Your task to perform on an android device: turn off priority inbox in the gmail app Image 0: 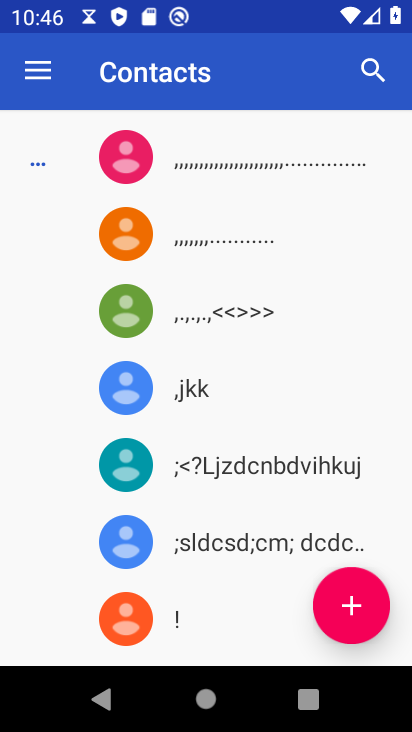
Step 0: press home button
Your task to perform on an android device: turn off priority inbox in the gmail app Image 1: 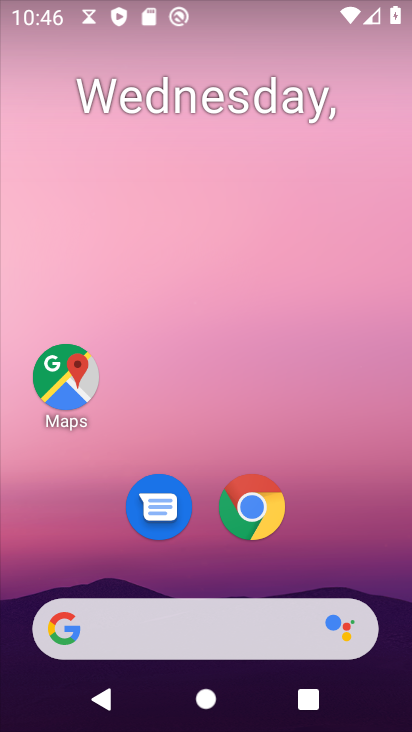
Step 1: drag from (250, 598) to (206, 199)
Your task to perform on an android device: turn off priority inbox in the gmail app Image 2: 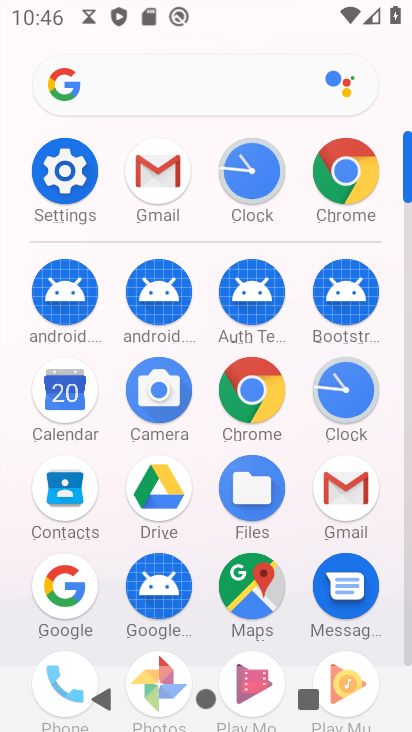
Step 2: click (143, 200)
Your task to perform on an android device: turn off priority inbox in the gmail app Image 3: 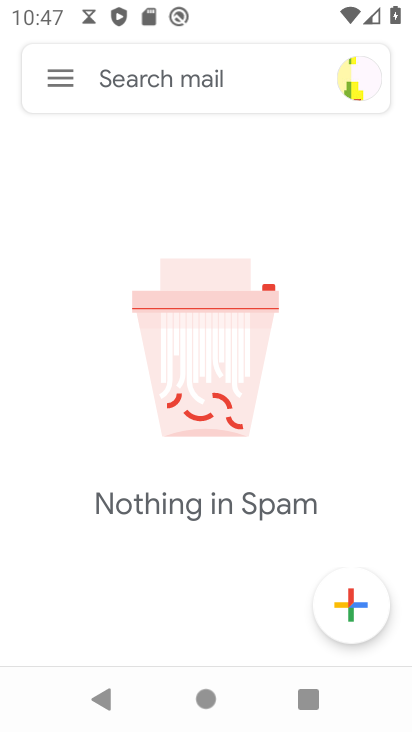
Step 3: click (43, 87)
Your task to perform on an android device: turn off priority inbox in the gmail app Image 4: 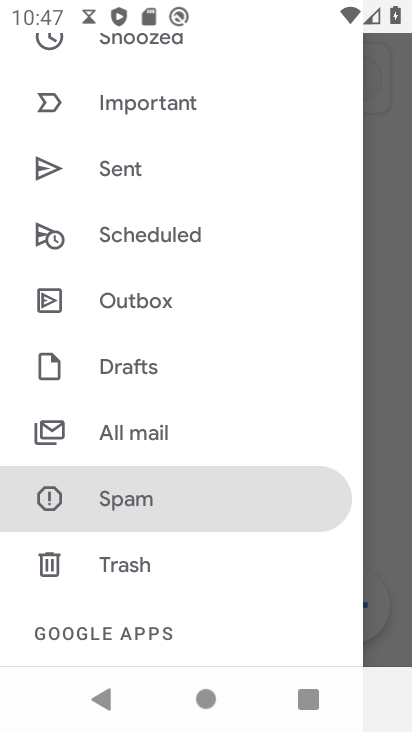
Step 4: drag from (147, 480) to (269, 238)
Your task to perform on an android device: turn off priority inbox in the gmail app Image 5: 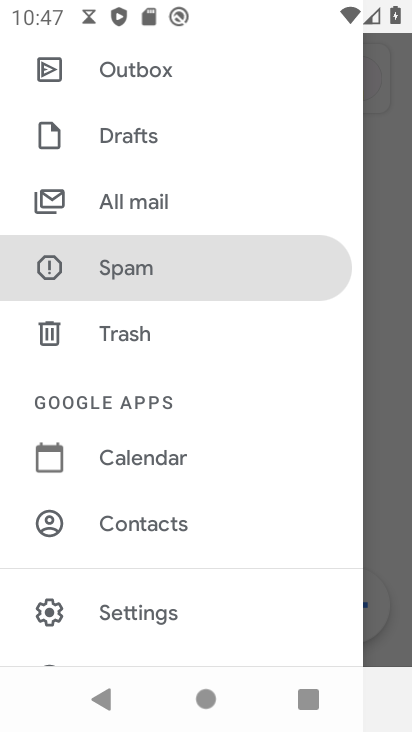
Step 5: click (116, 600)
Your task to perform on an android device: turn off priority inbox in the gmail app Image 6: 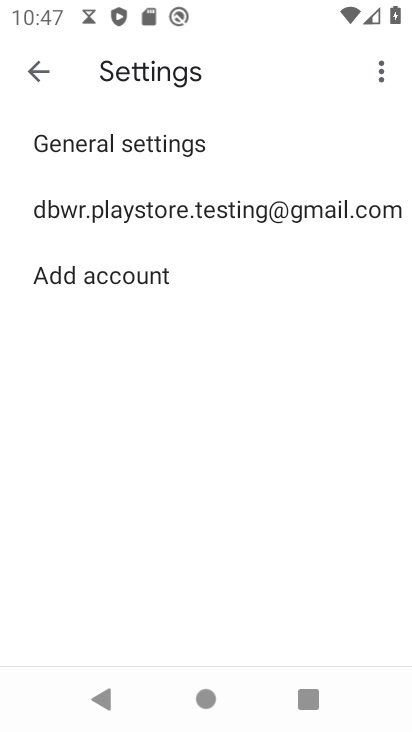
Step 6: click (225, 219)
Your task to perform on an android device: turn off priority inbox in the gmail app Image 7: 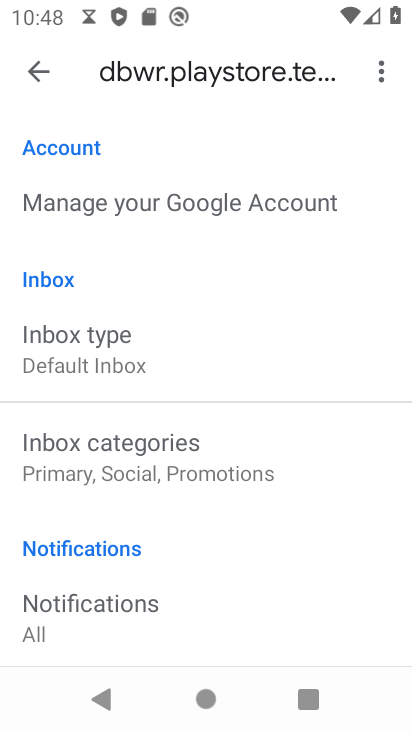
Step 7: click (131, 336)
Your task to perform on an android device: turn off priority inbox in the gmail app Image 8: 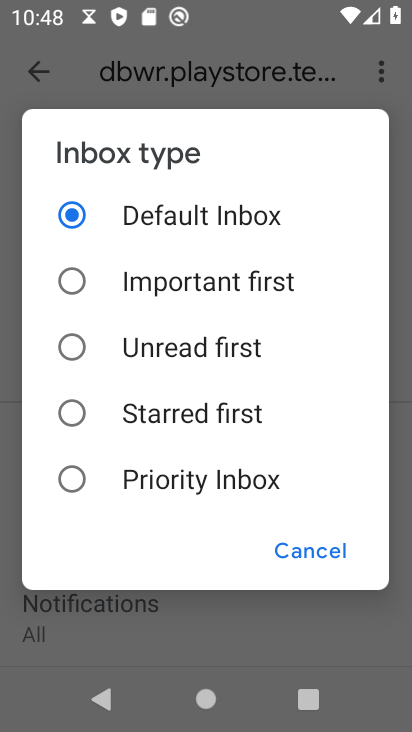
Step 8: click (129, 470)
Your task to perform on an android device: turn off priority inbox in the gmail app Image 9: 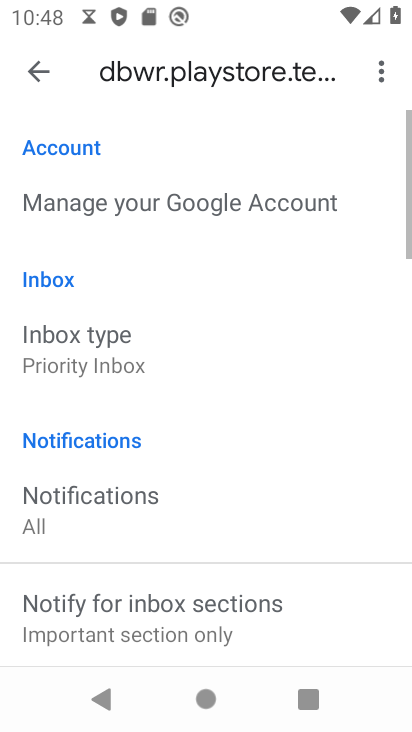
Step 9: click (130, 361)
Your task to perform on an android device: turn off priority inbox in the gmail app Image 10: 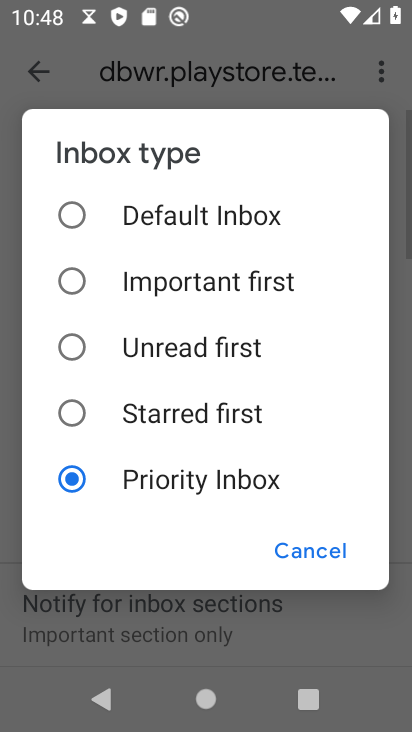
Step 10: click (216, 215)
Your task to perform on an android device: turn off priority inbox in the gmail app Image 11: 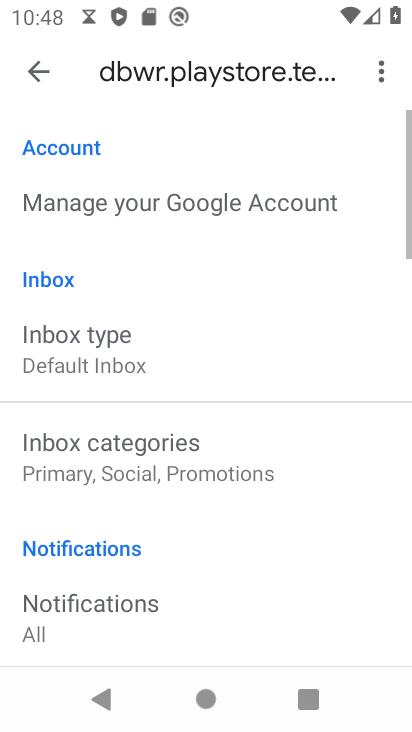
Step 11: task complete